Your task to perform on an android device: Show me popular videos on Youtube Image 0: 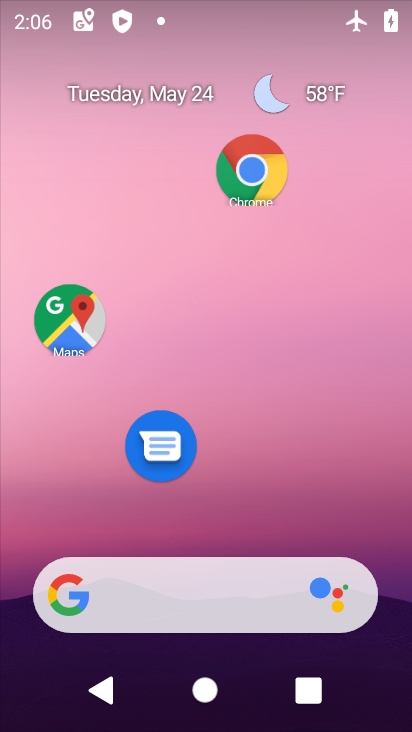
Step 0: drag from (197, 577) to (223, 108)
Your task to perform on an android device: Show me popular videos on Youtube Image 1: 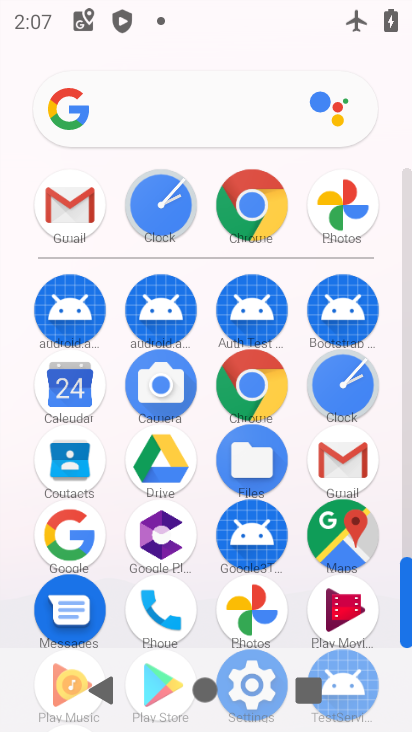
Step 1: drag from (263, 403) to (273, 248)
Your task to perform on an android device: Show me popular videos on Youtube Image 2: 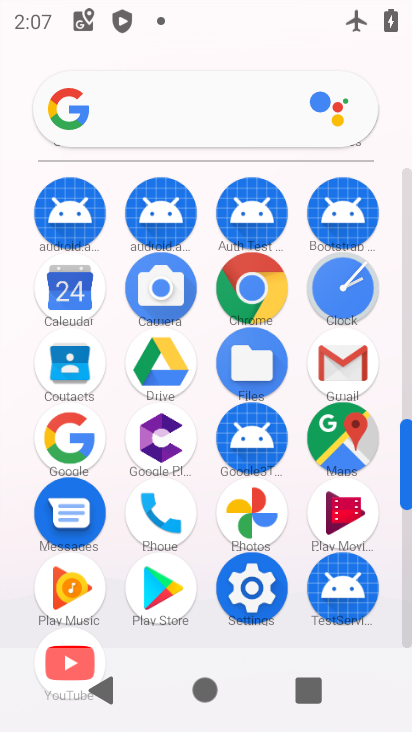
Step 2: drag from (119, 503) to (135, 173)
Your task to perform on an android device: Show me popular videos on Youtube Image 3: 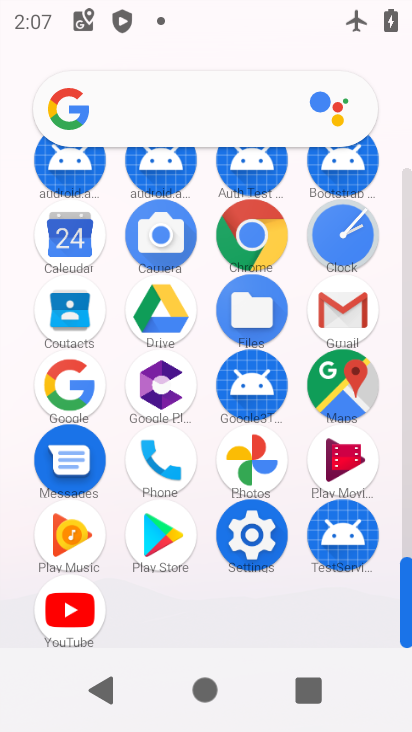
Step 3: click (74, 623)
Your task to perform on an android device: Show me popular videos on Youtube Image 4: 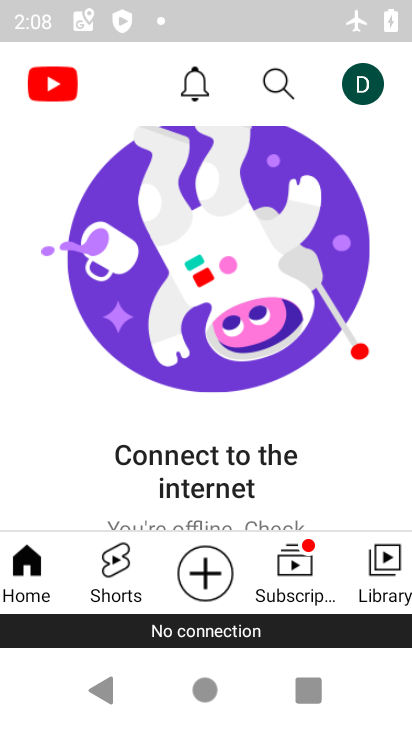
Step 4: task complete